Your task to perform on an android device: Search for Mexican restaurants on Maps Image 0: 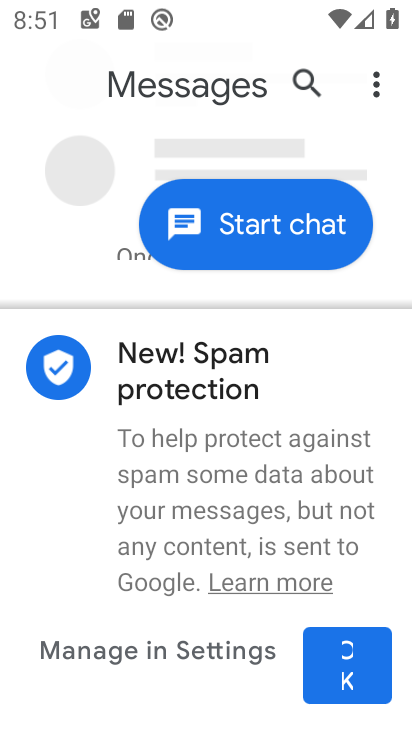
Step 0: press home button
Your task to perform on an android device: Search for Mexican restaurants on Maps Image 1: 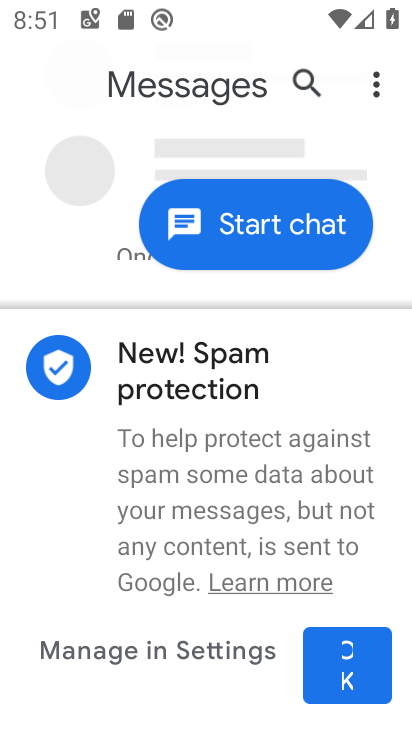
Step 1: type "weatj"
Your task to perform on an android device: Search for Mexican restaurants on Maps Image 2: 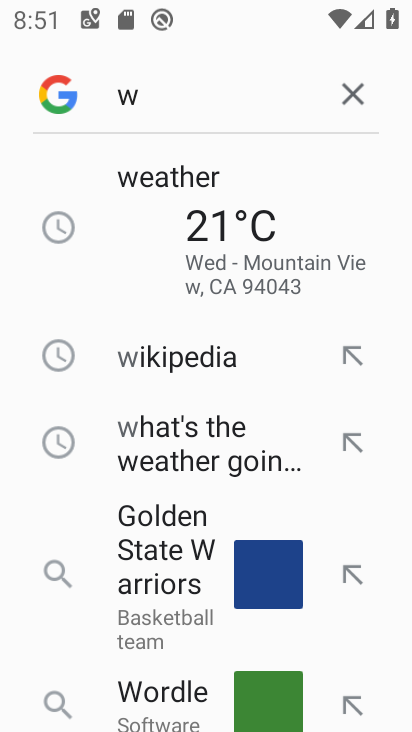
Step 2: drag from (317, 645) to (252, 197)
Your task to perform on an android device: Search for Mexican restaurants on Maps Image 3: 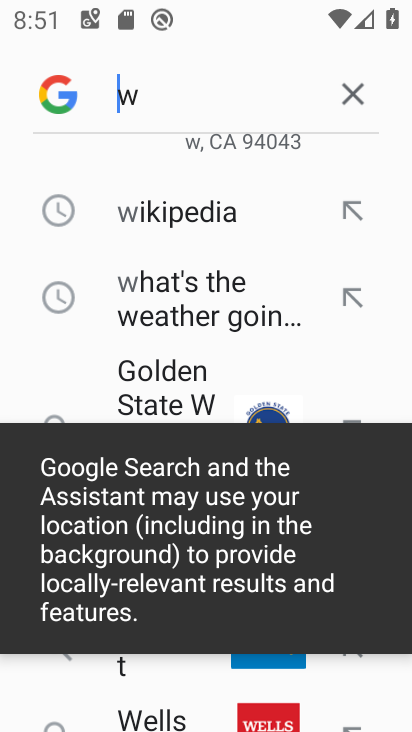
Step 3: press home button
Your task to perform on an android device: Search for Mexican restaurants on Maps Image 4: 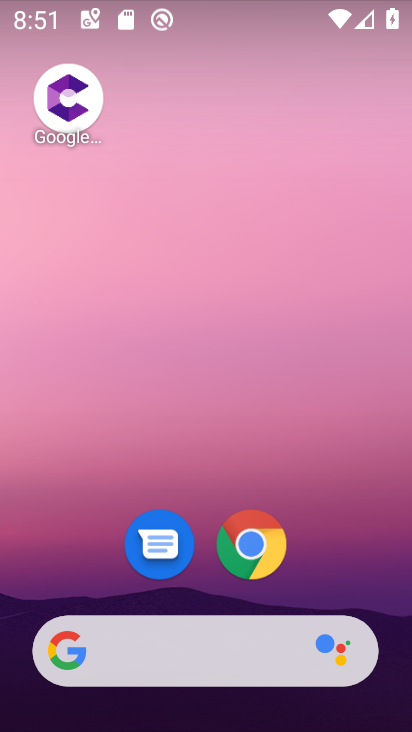
Step 4: drag from (336, 584) to (340, 159)
Your task to perform on an android device: Search for Mexican restaurants on Maps Image 5: 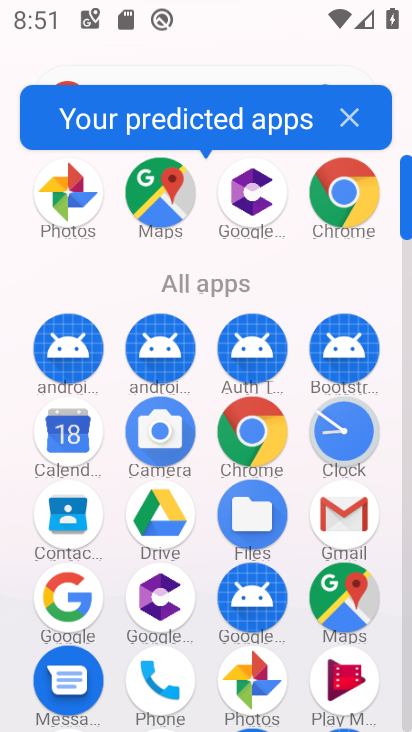
Step 5: click (162, 185)
Your task to perform on an android device: Search for Mexican restaurants on Maps Image 6: 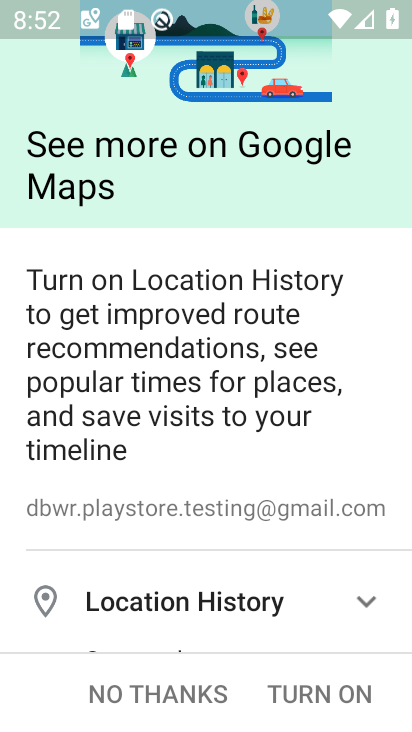
Step 6: click (205, 710)
Your task to perform on an android device: Search for Mexican restaurants on Maps Image 7: 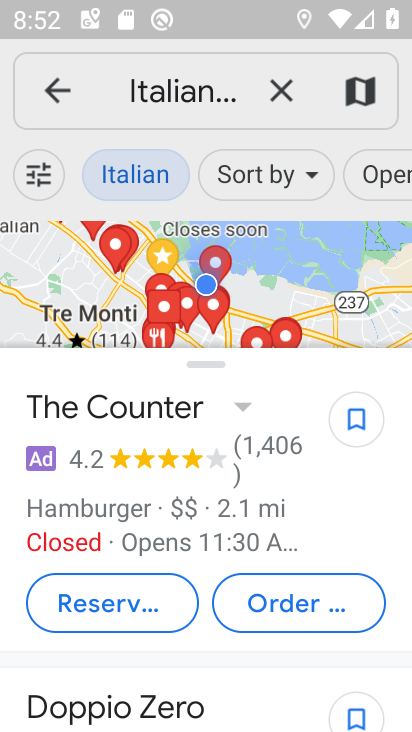
Step 7: click (218, 73)
Your task to perform on an android device: Search for Mexican restaurants on Maps Image 8: 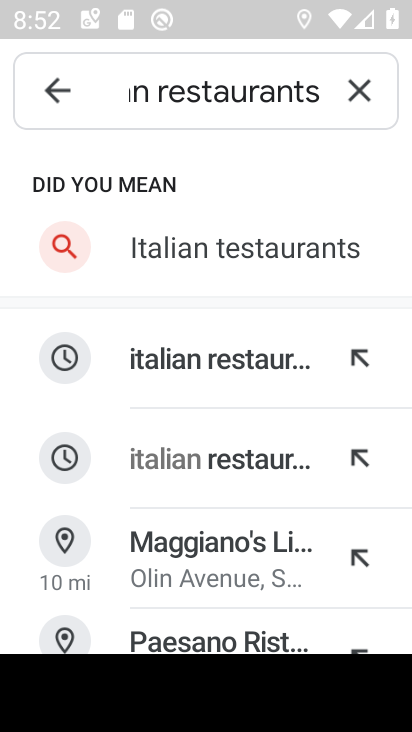
Step 8: click (369, 92)
Your task to perform on an android device: Search for Mexican restaurants on Maps Image 9: 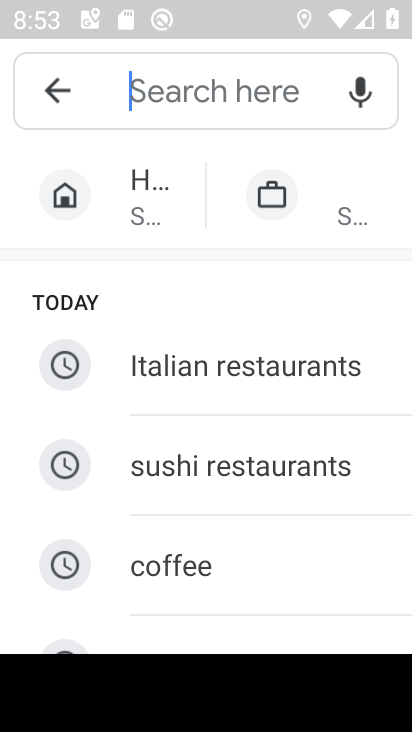
Step 9: type ""
Your task to perform on an android device: Search for Mexican restaurants on Maps Image 10: 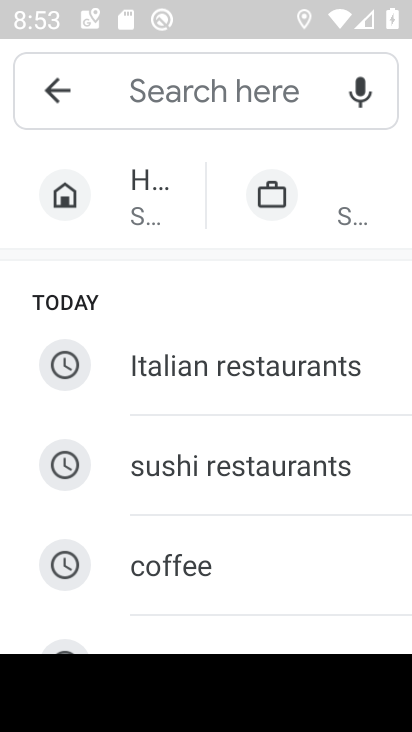
Step 10: type "Mexican restaurants"
Your task to perform on an android device: Search for Mexican restaurants on Maps Image 11: 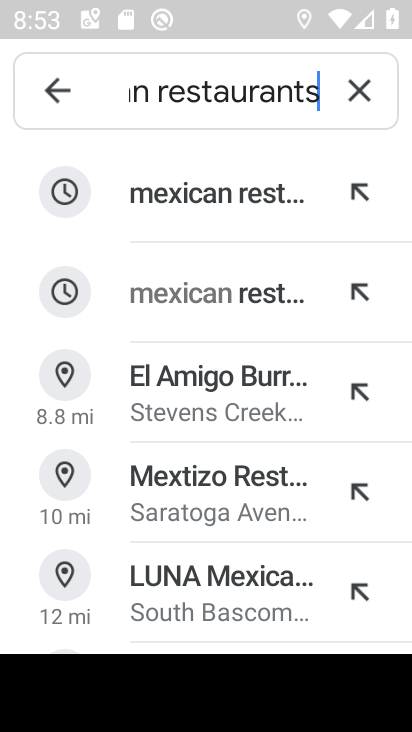
Step 11: press enter
Your task to perform on an android device: Search for Mexican restaurants on Maps Image 12: 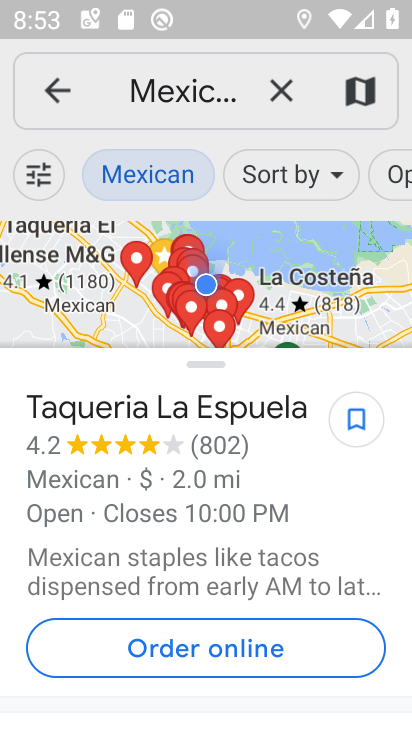
Step 12: task complete